Your task to perform on an android device: What's the news in India? Image 0: 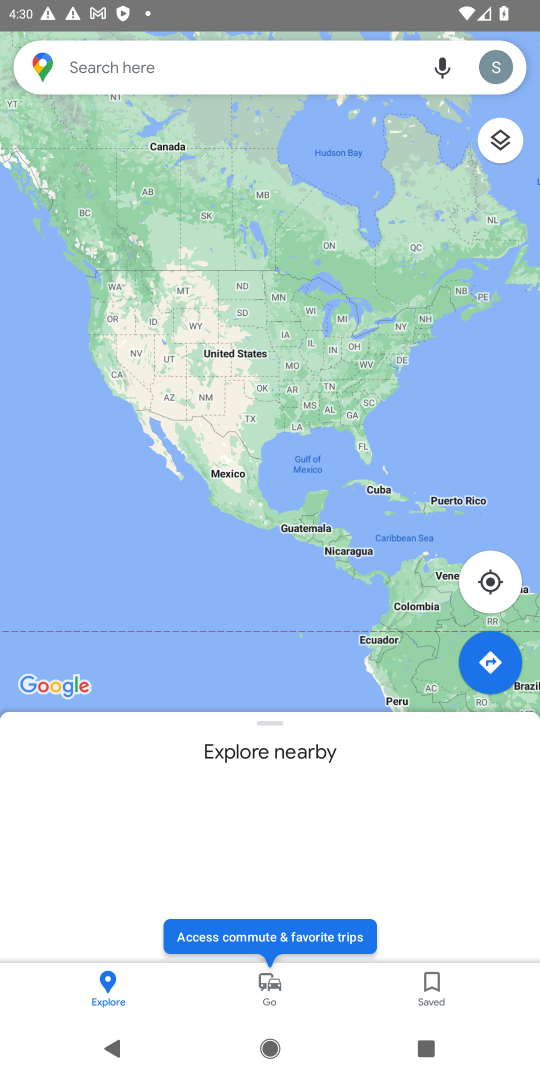
Step 0: press home button
Your task to perform on an android device: What's the news in India? Image 1: 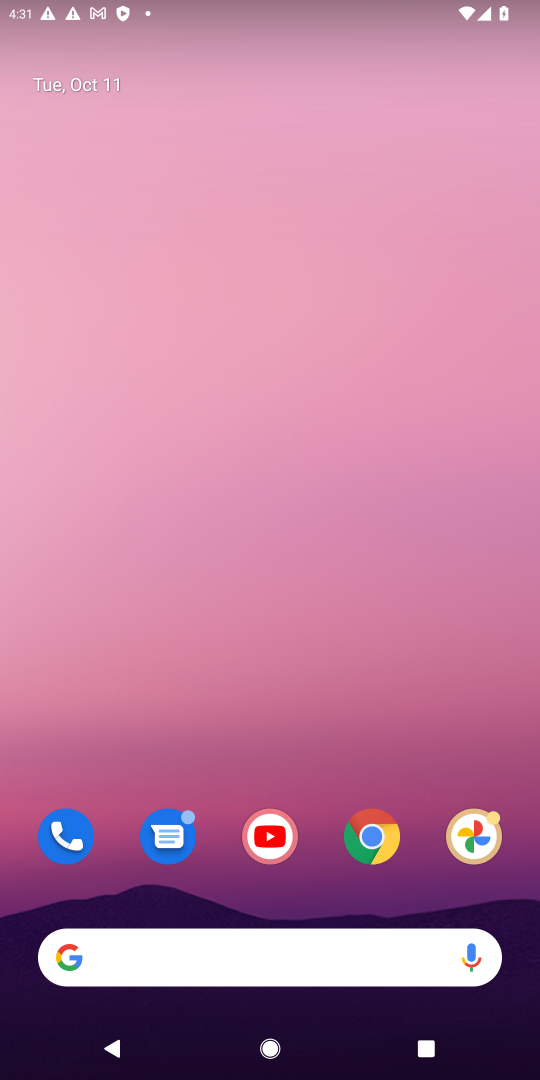
Step 1: click (365, 841)
Your task to perform on an android device: What's the news in India? Image 2: 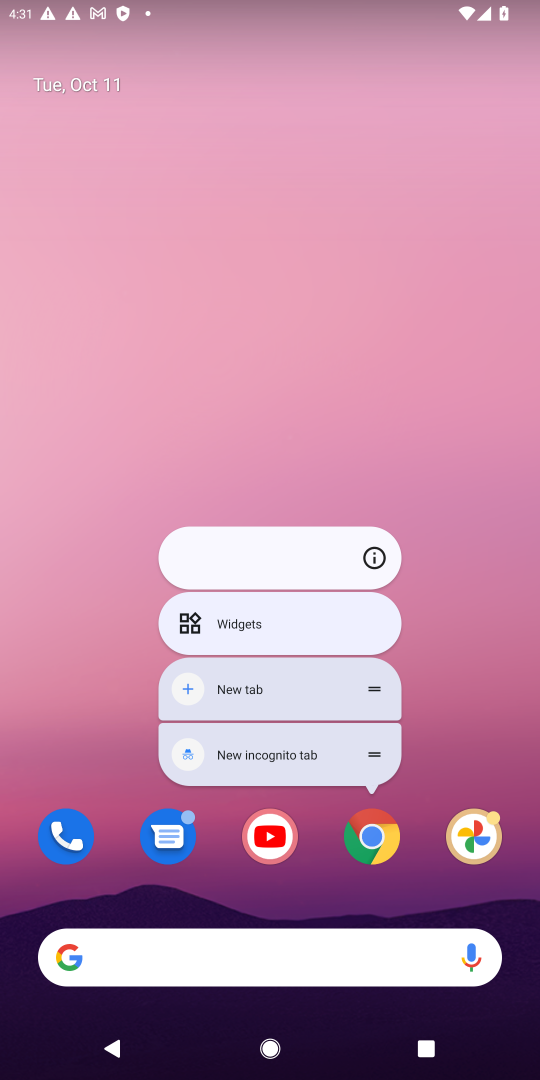
Step 2: click (375, 833)
Your task to perform on an android device: What's the news in India? Image 3: 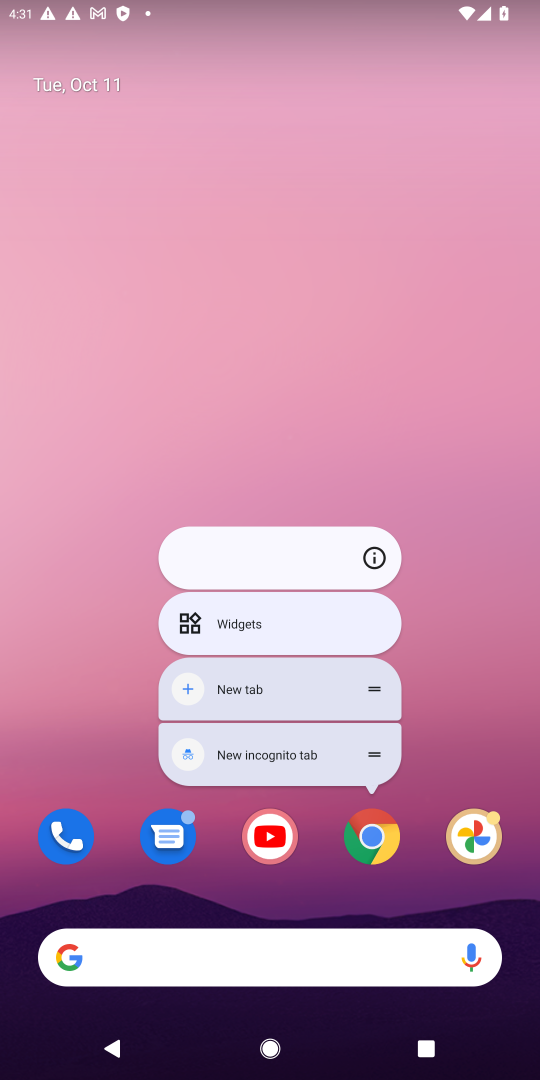
Step 3: click (381, 835)
Your task to perform on an android device: What's the news in India? Image 4: 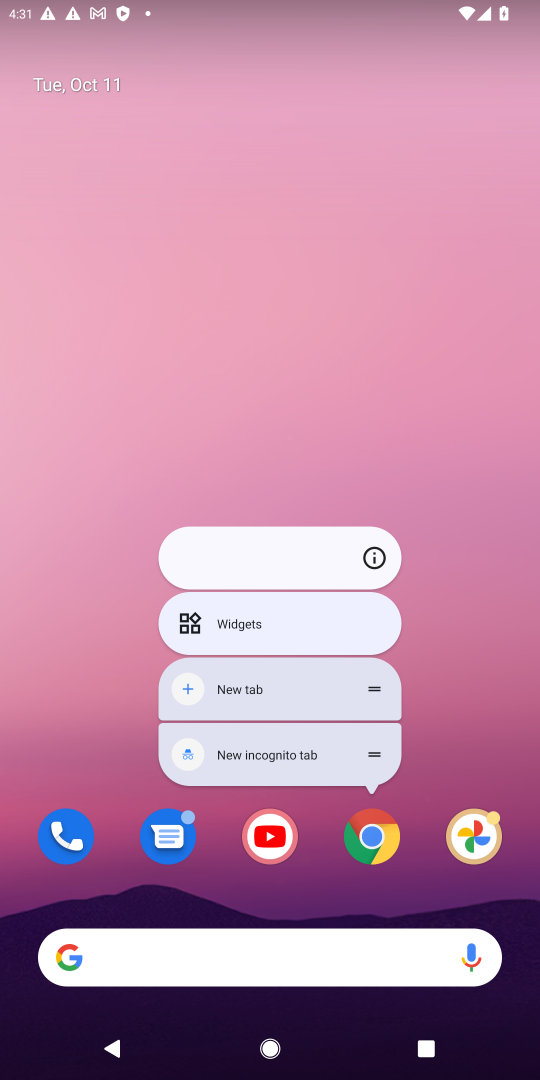
Step 4: click (372, 843)
Your task to perform on an android device: What's the news in India? Image 5: 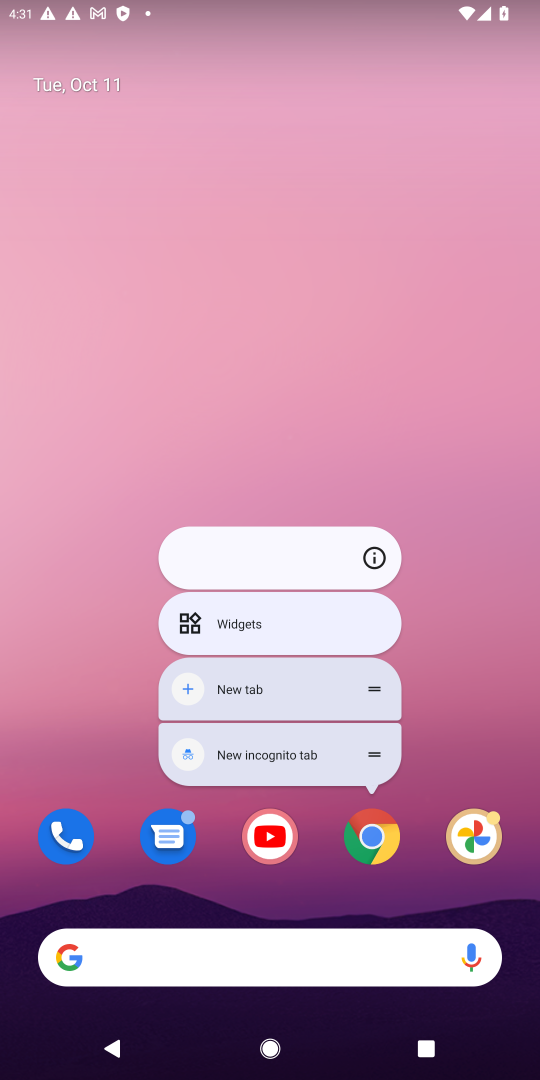
Step 5: click (373, 839)
Your task to perform on an android device: What's the news in India? Image 6: 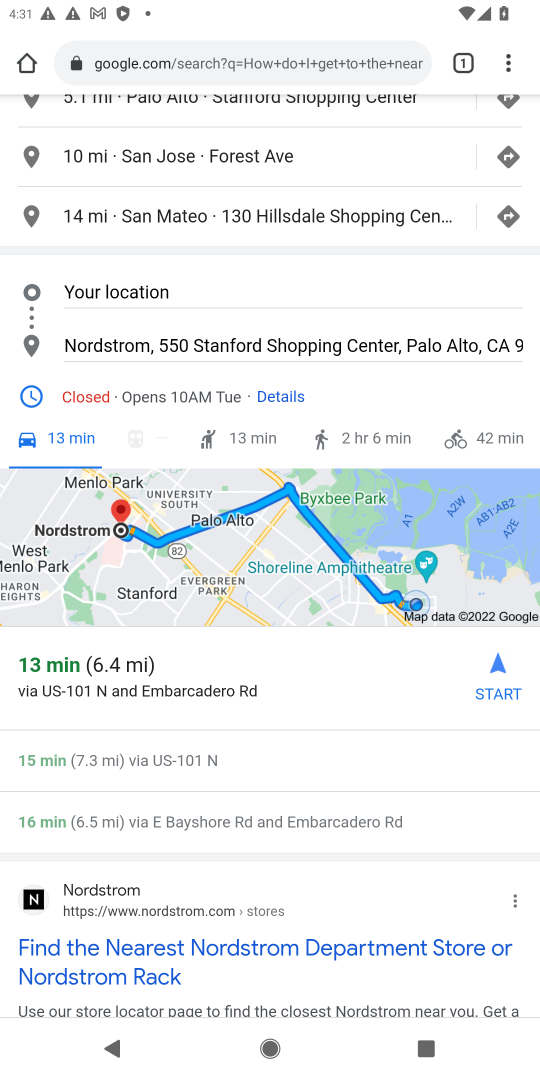
Step 6: click (288, 55)
Your task to perform on an android device: What's the news in India? Image 7: 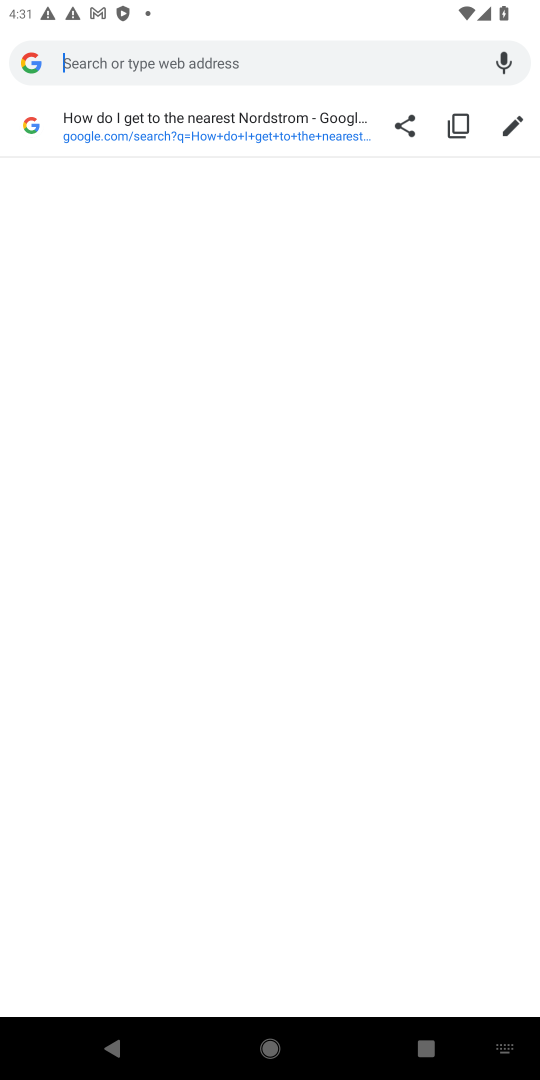
Step 7: drag from (317, 748) to (285, 981)
Your task to perform on an android device: What's the news in India? Image 8: 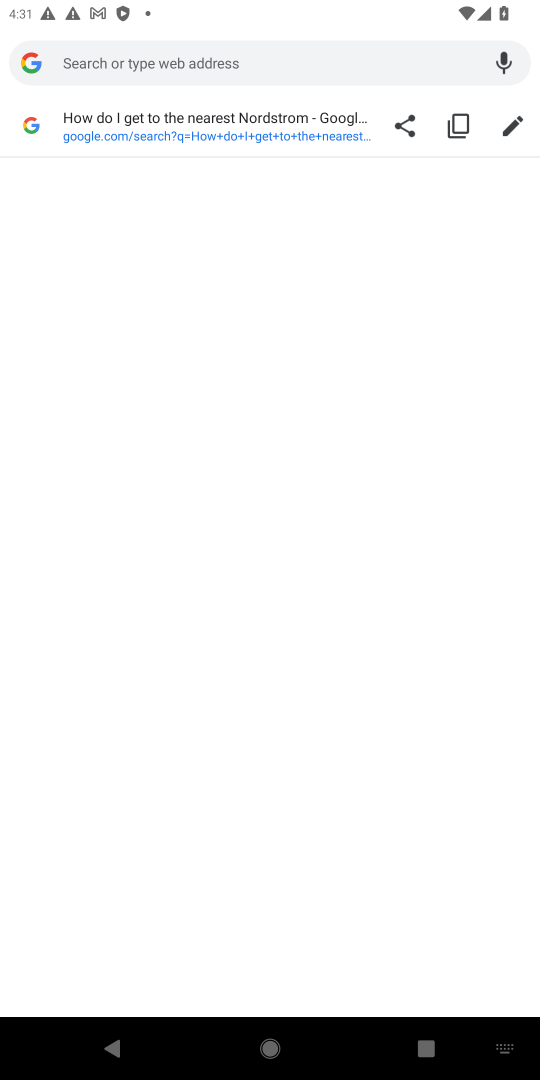
Step 8: type " news in India"
Your task to perform on an android device: What's the news in India? Image 9: 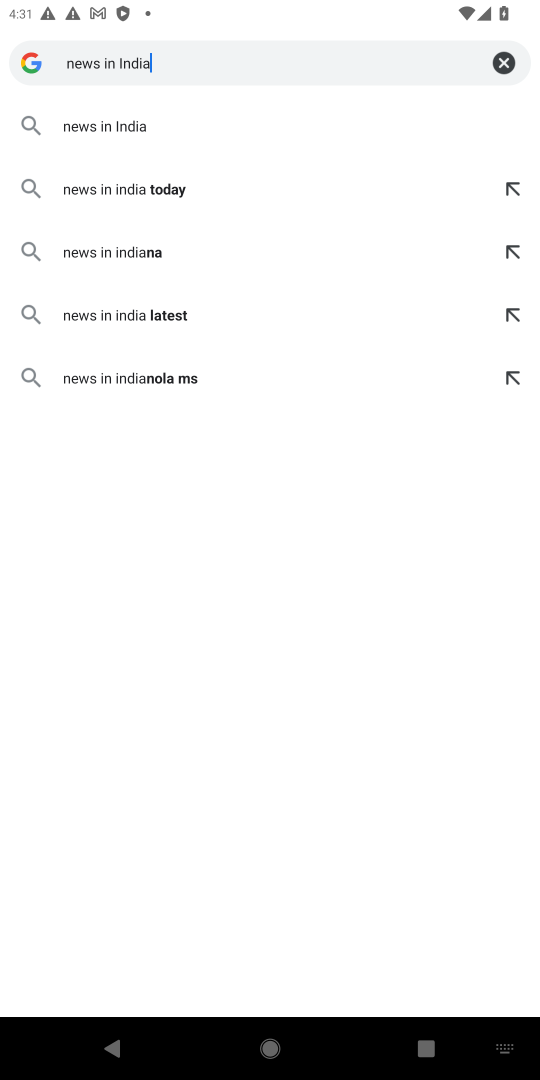
Step 9: click (113, 120)
Your task to perform on an android device: What's the news in India? Image 10: 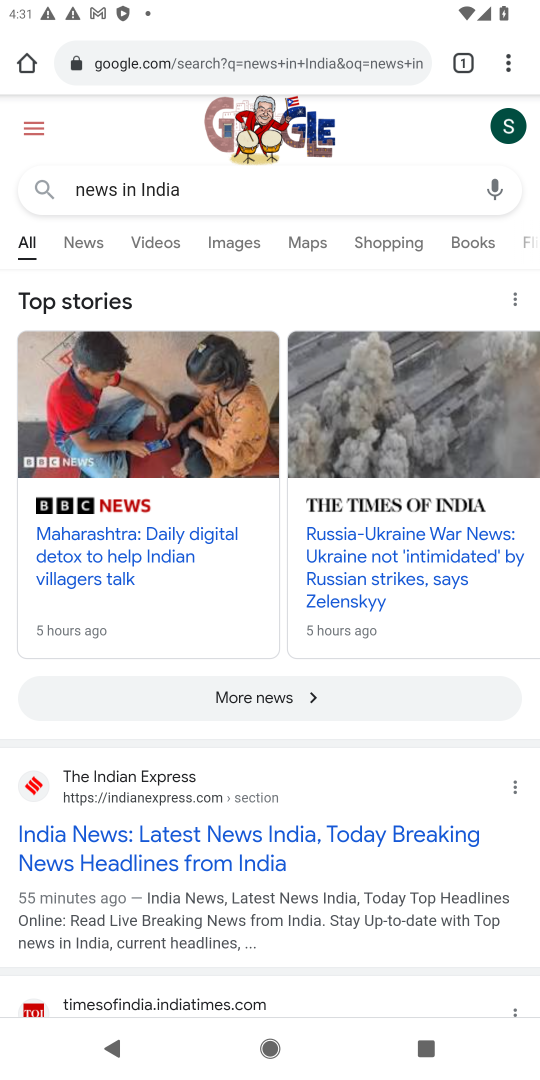
Step 10: click (82, 242)
Your task to perform on an android device: What's the news in India? Image 11: 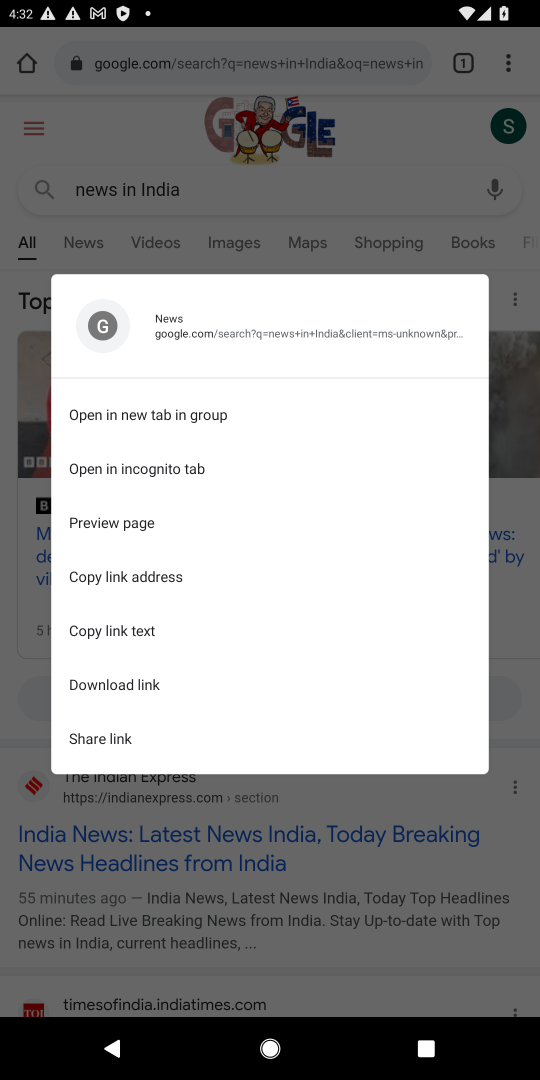
Step 11: click (95, 250)
Your task to perform on an android device: What's the news in India? Image 12: 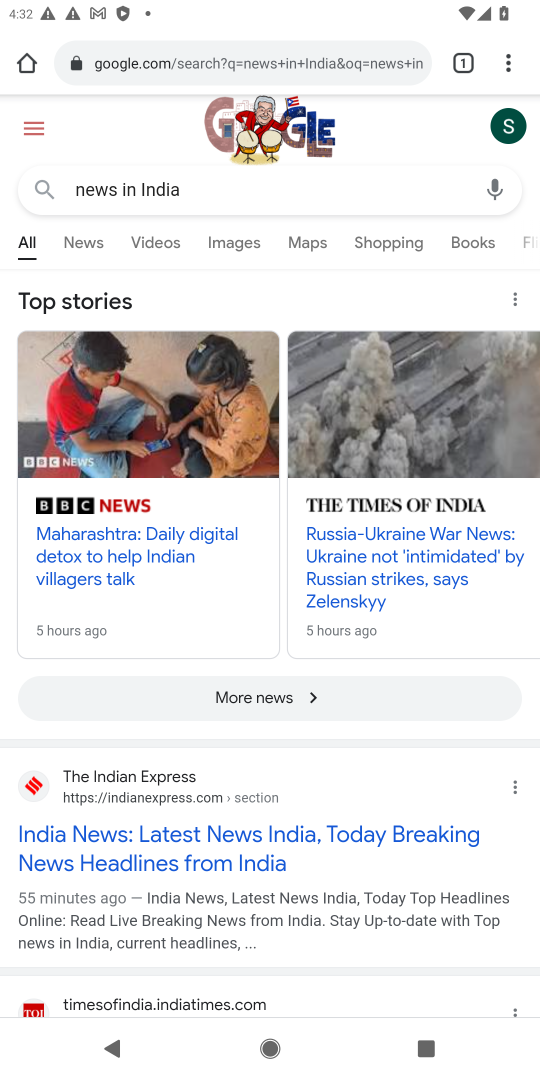
Step 12: click (79, 247)
Your task to perform on an android device: What's the news in India? Image 13: 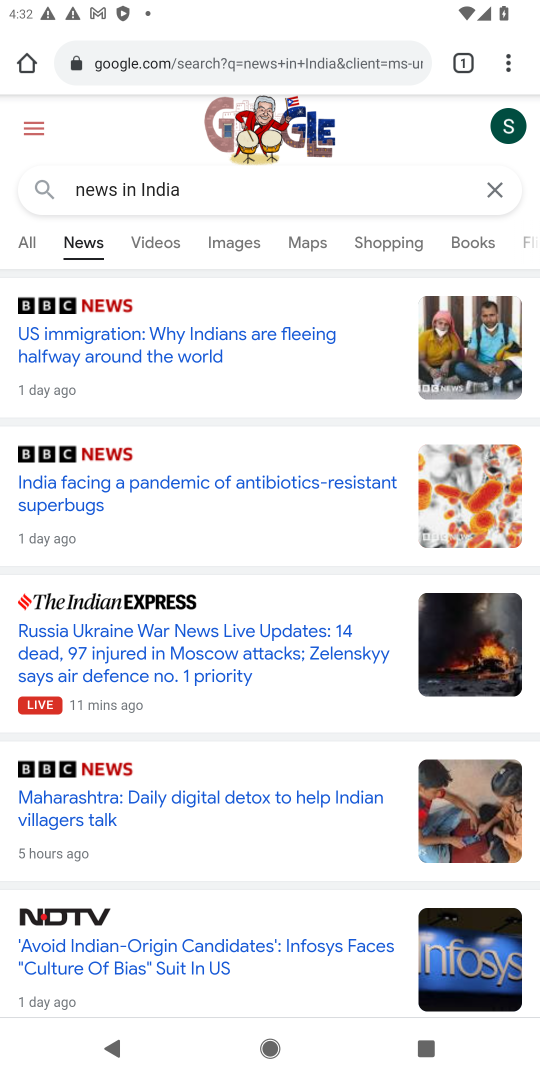
Step 13: task complete